Your task to perform on an android device: turn on bluetooth scan Image 0: 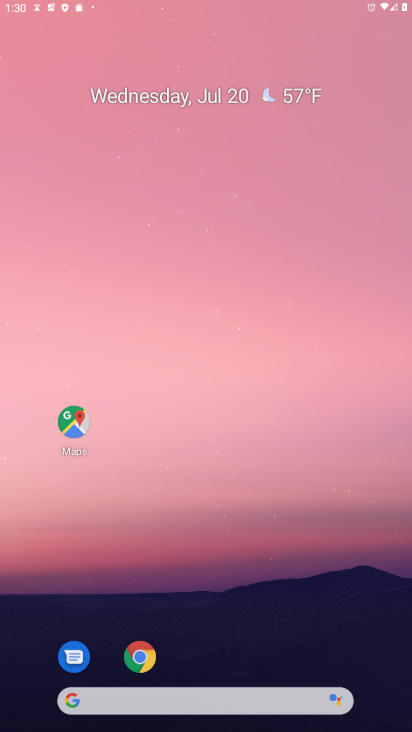
Step 0: press home button
Your task to perform on an android device: turn on bluetooth scan Image 1: 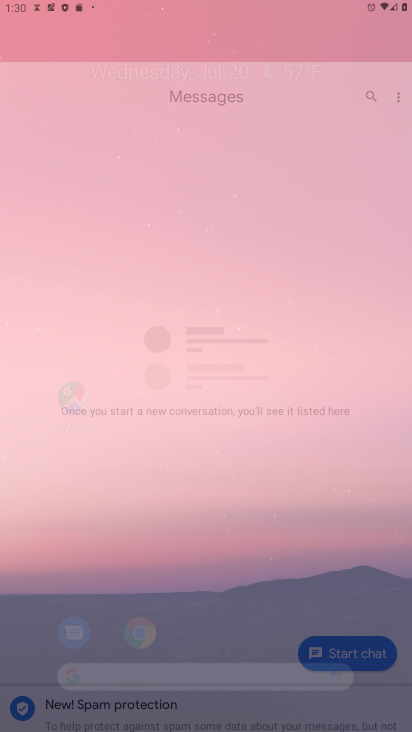
Step 1: drag from (215, 656) to (245, 100)
Your task to perform on an android device: turn on bluetooth scan Image 2: 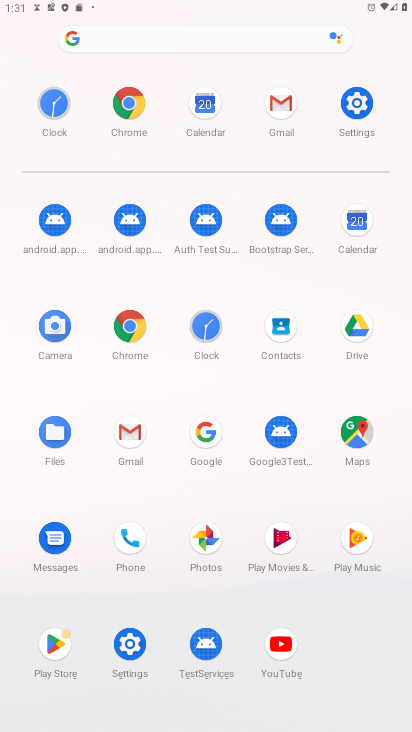
Step 2: click (354, 96)
Your task to perform on an android device: turn on bluetooth scan Image 3: 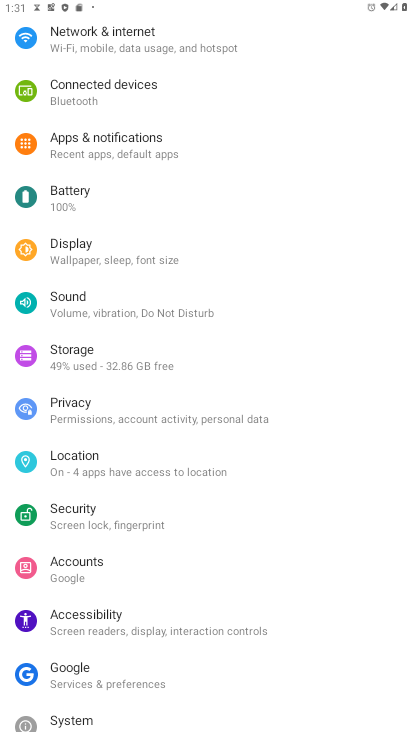
Step 3: click (112, 461)
Your task to perform on an android device: turn on bluetooth scan Image 4: 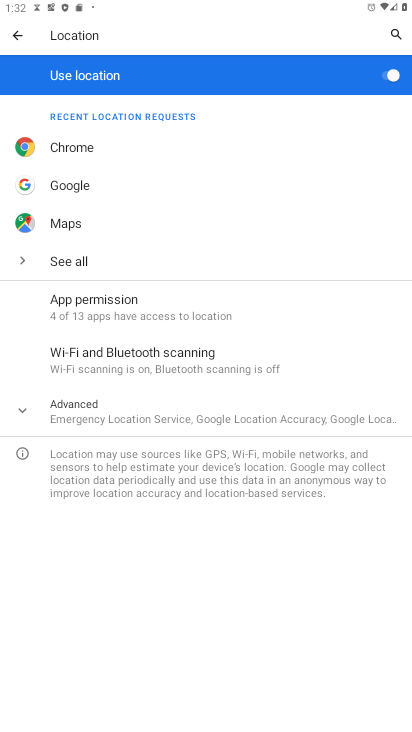
Step 4: click (190, 359)
Your task to perform on an android device: turn on bluetooth scan Image 5: 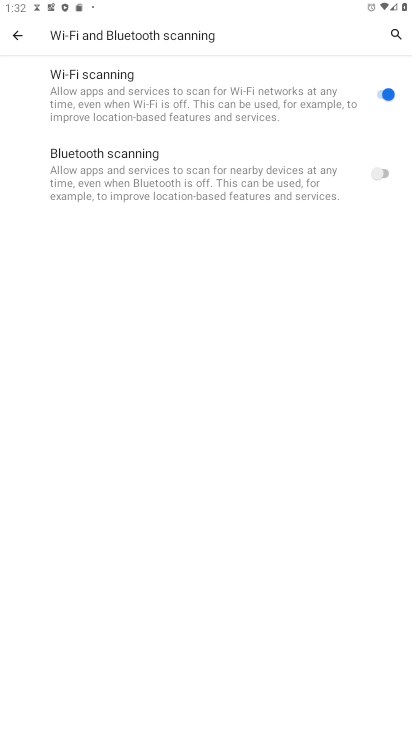
Step 5: click (383, 173)
Your task to perform on an android device: turn on bluetooth scan Image 6: 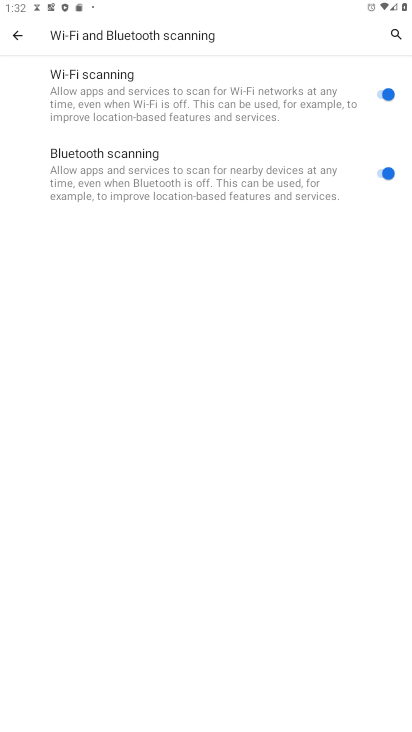
Step 6: task complete